Your task to perform on an android device: toggle javascript in the chrome app Image 0: 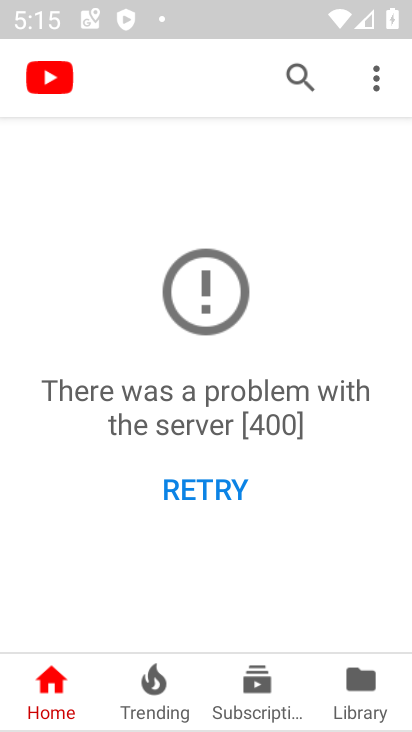
Step 0: press home button
Your task to perform on an android device: toggle javascript in the chrome app Image 1: 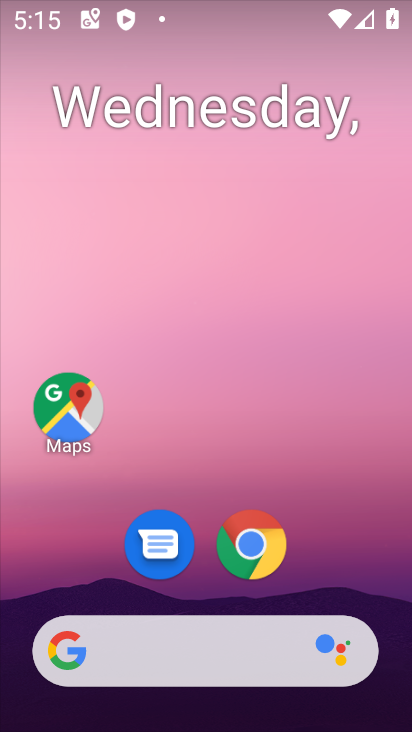
Step 1: click (250, 547)
Your task to perform on an android device: toggle javascript in the chrome app Image 2: 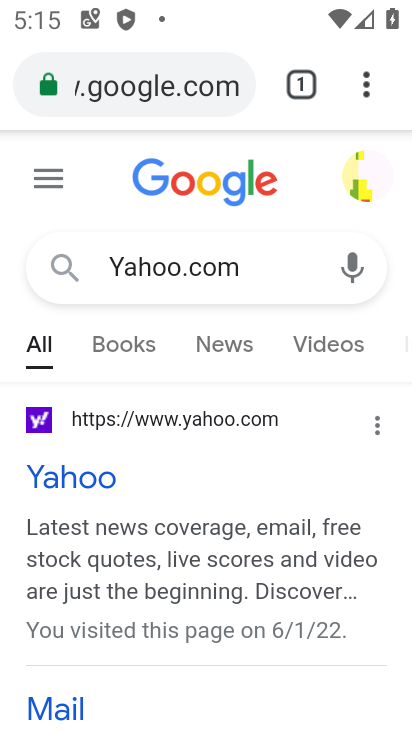
Step 2: click (362, 81)
Your task to perform on an android device: toggle javascript in the chrome app Image 3: 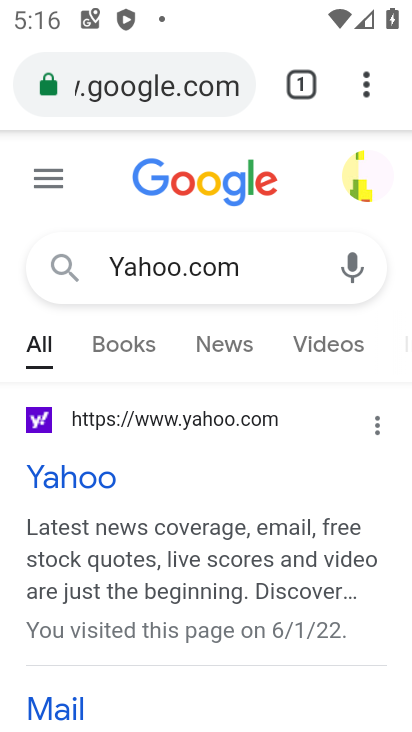
Step 3: drag from (251, 648) to (266, 286)
Your task to perform on an android device: toggle javascript in the chrome app Image 4: 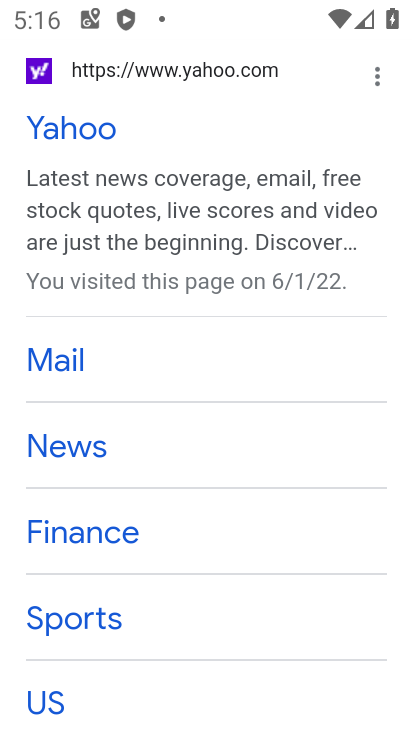
Step 4: click (380, 73)
Your task to perform on an android device: toggle javascript in the chrome app Image 5: 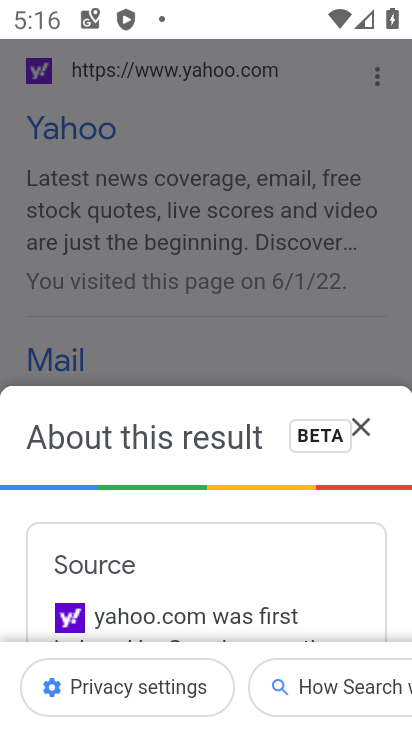
Step 5: click (363, 426)
Your task to perform on an android device: toggle javascript in the chrome app Image 6: 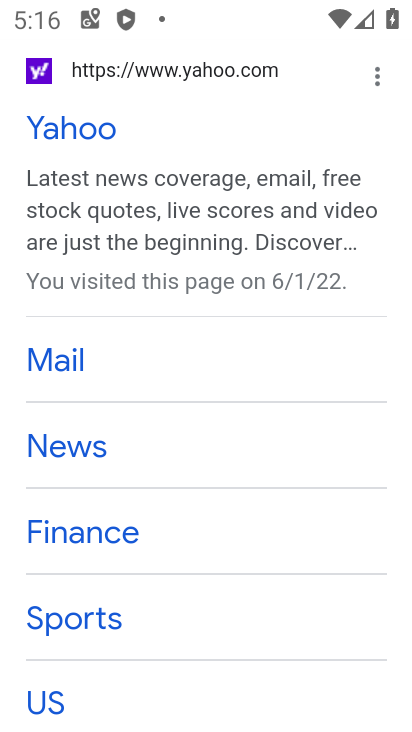
Step 6: click (375, 73)
Your task to perform on an android device: toggle javascript in the chrome app Image 7: 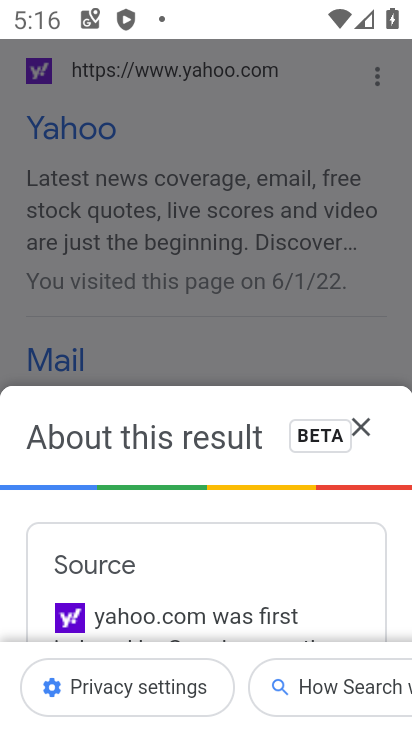
Step 7: click (367, 424)
Your task to perform on an android device: toggle javascript in the chrome app Image 8: 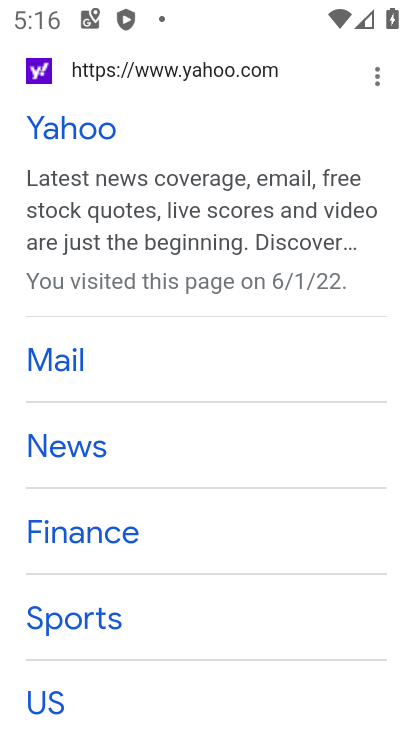
Step 8: click (374, 77)
Your task to perform on an android device: toggle javascript in the chrome app Image 9: 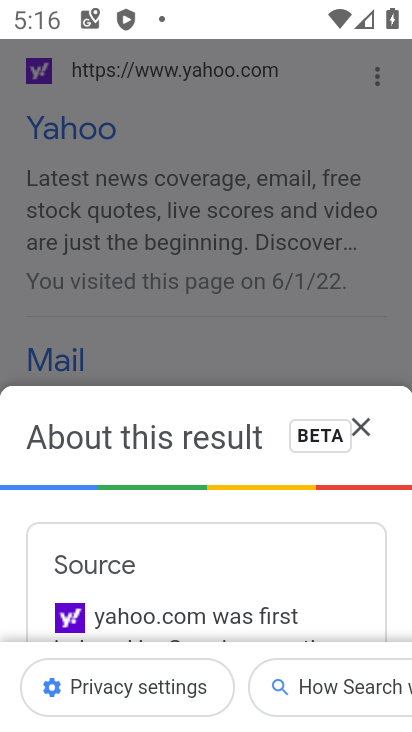
Step 9: press back button
Your task to perform on an android device: toggle javascript in the chrome app Image 10: 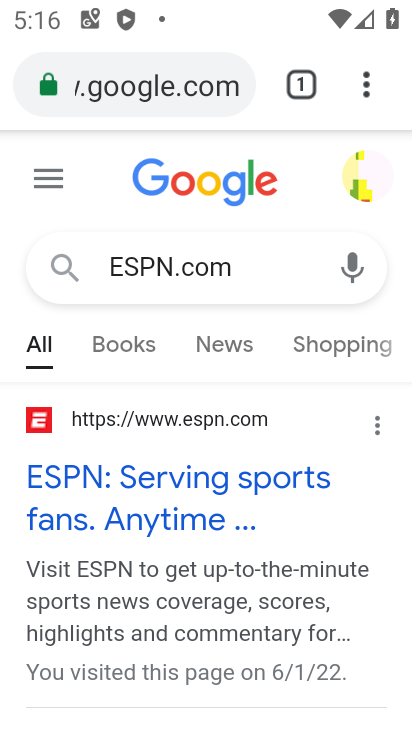
Step 10: click (367, 86)
Your task to perform on an android device: toggle javascript in the chrome app Image 11: 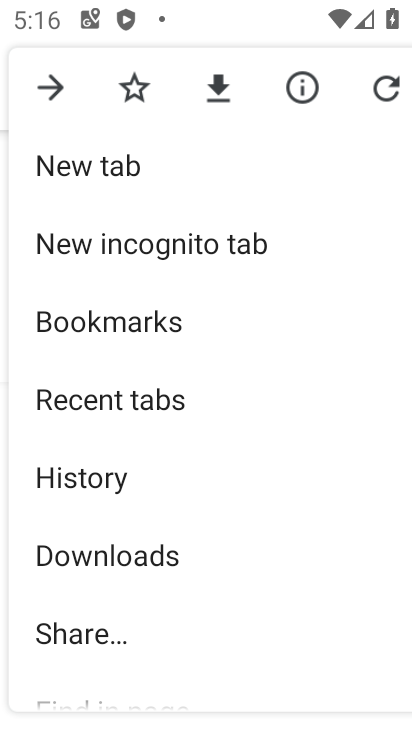
Step 11: drag from (267, 602) to (283, 255)
Your task to perform on an android device: toggle javascript in the chrome app Image 12: 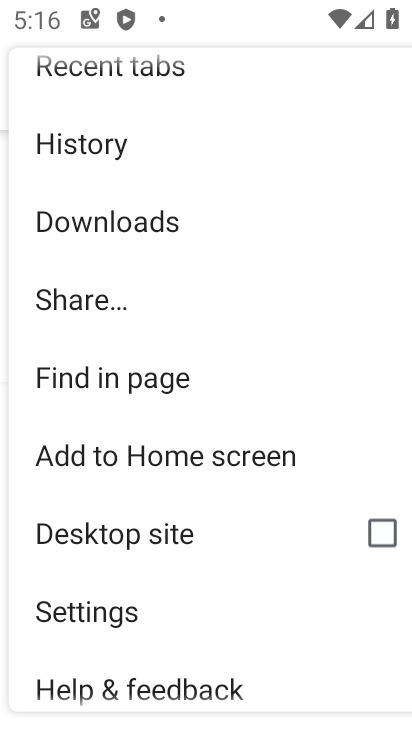
Step 12: click (117, 600)
Your task to perform on an android device: toggle javascript in the chrome app Image 13: 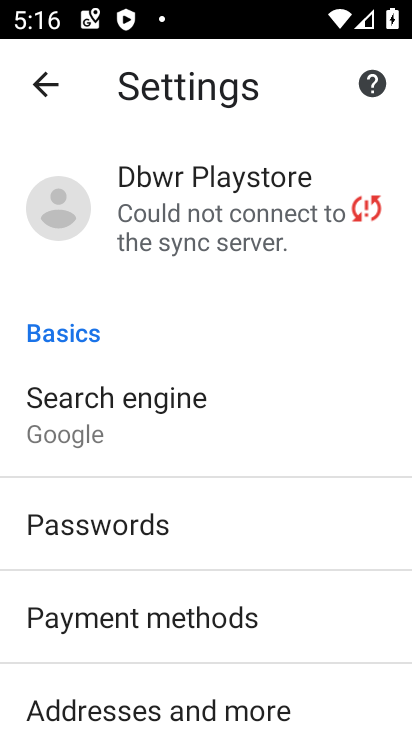
Step 13: drag from (315, 710) to (311, 305)
Your task to perform on an android device: toggle javascript in the chrome app Image 14: 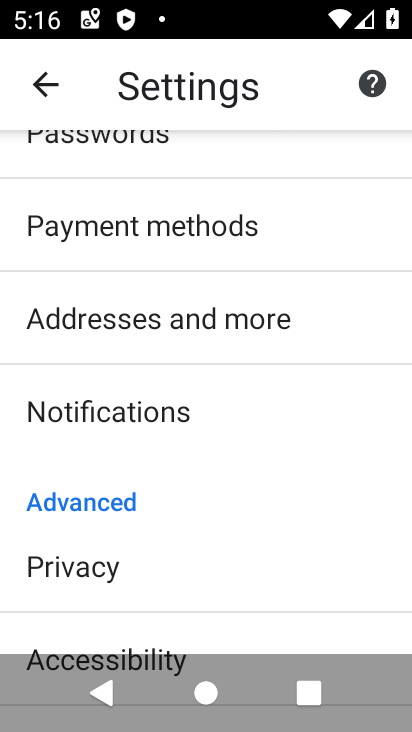
Step 14: drag from (304, 560) to (299, 336)
Your task to perform on an android device: toggle javascript in the chrome app Image 15: 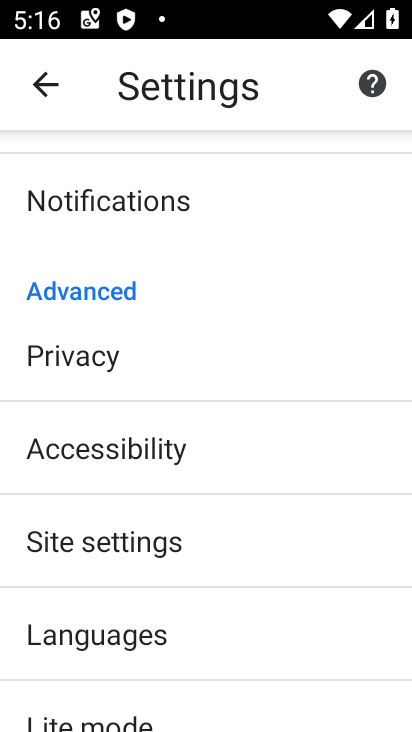
Step 15: click (130, 548)
Your task to perform on an android device: toggle javascript in the chrome app Image 16: 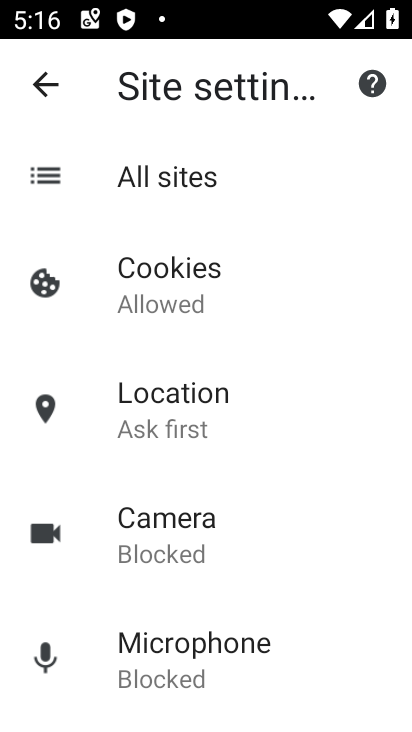
Step 16: click (307, 227)
Your task to perform on an android device: toggle javascript in the chrome app Image 17: 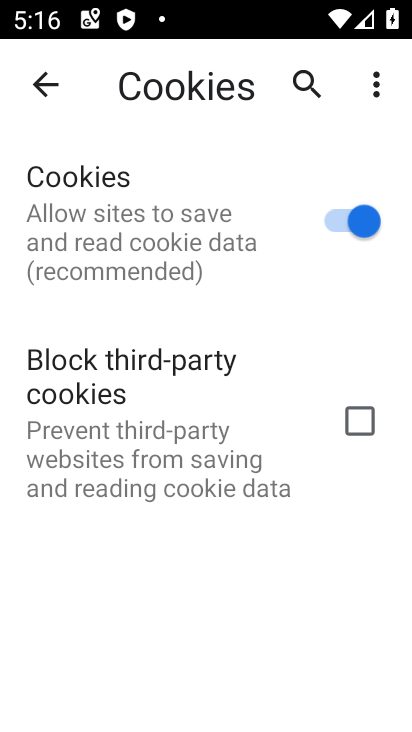
Step 17: click (34, 89)
Your task to perform on an android device: toggle javascript in the chrome app Image 18: 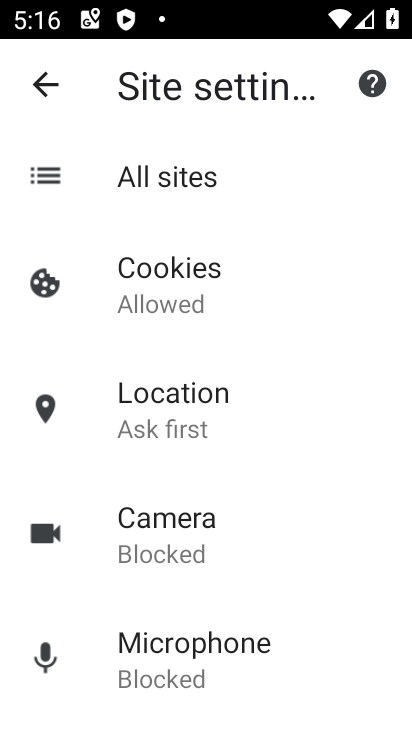
Step 18: drag from (315, 674) to (305, 172)
Your task to perform on an android device: toggle javascript in the chrome app Image 19: 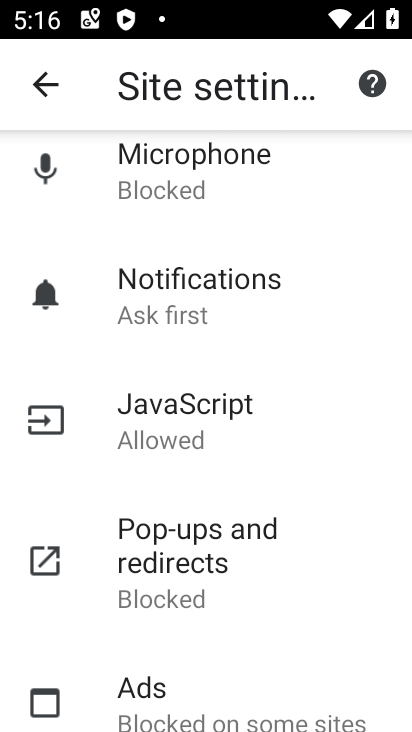
Step 19: click (143, 417)
Your task to perform on an android device: toggle javascript in the chrome app Image 20: 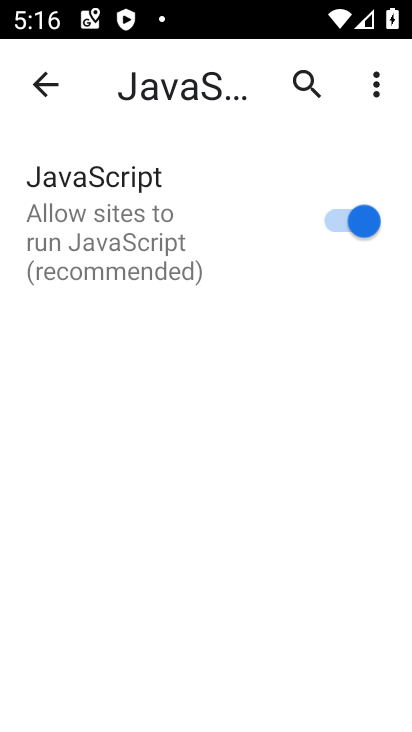
Step 20: click (331, 213)
Your task to perform on an android device: toggle javascript in the chrome app Image 21: 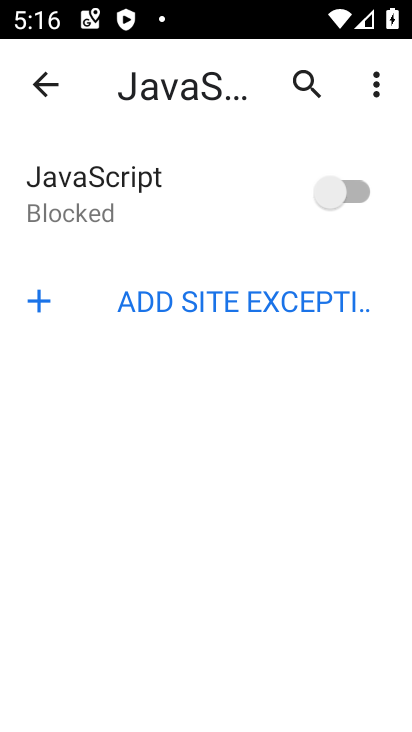
Step 21: task complete